Your task to perform on an android device: Search for custom wallets on etsy. Image 0: 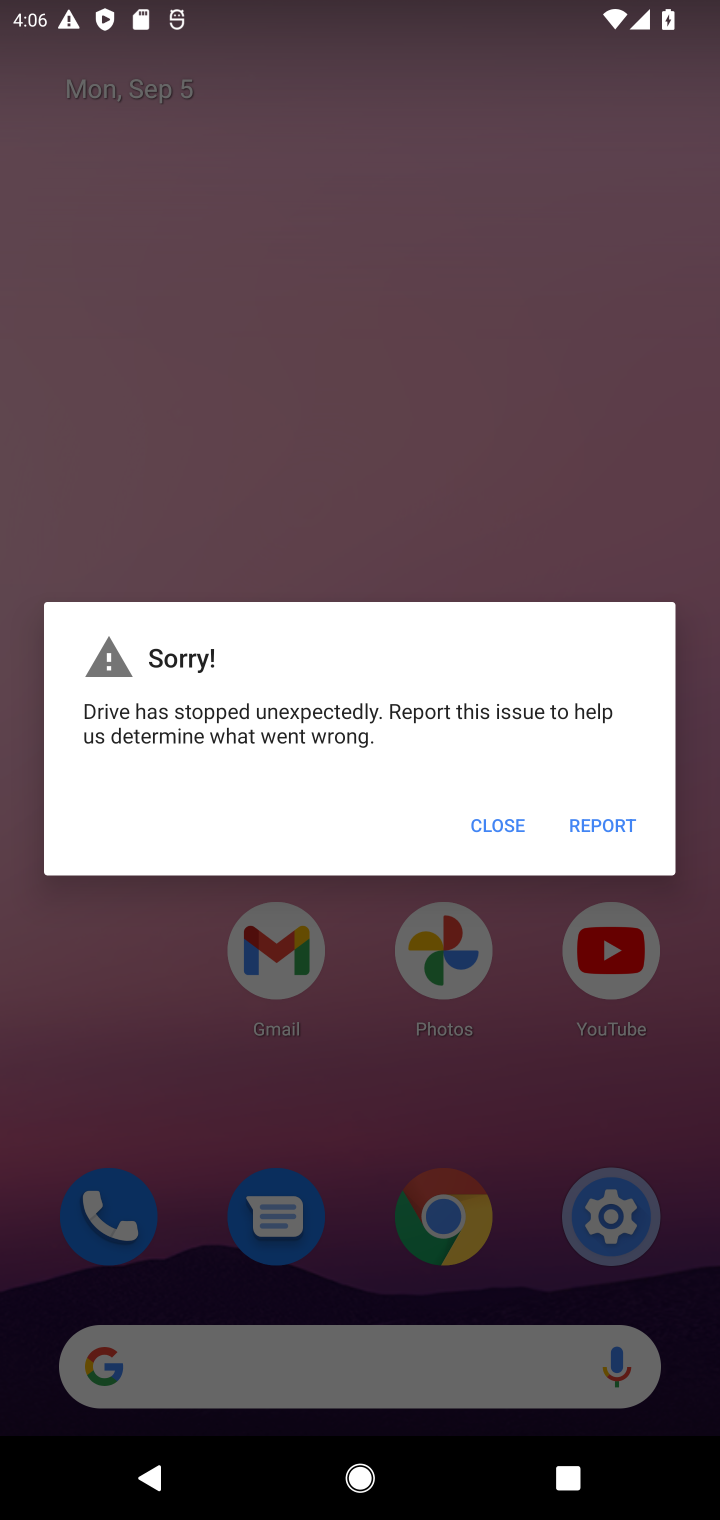
Step 0: press home button
Your task to perform on an android device: Search for custom wallets on etsy. Image 1: 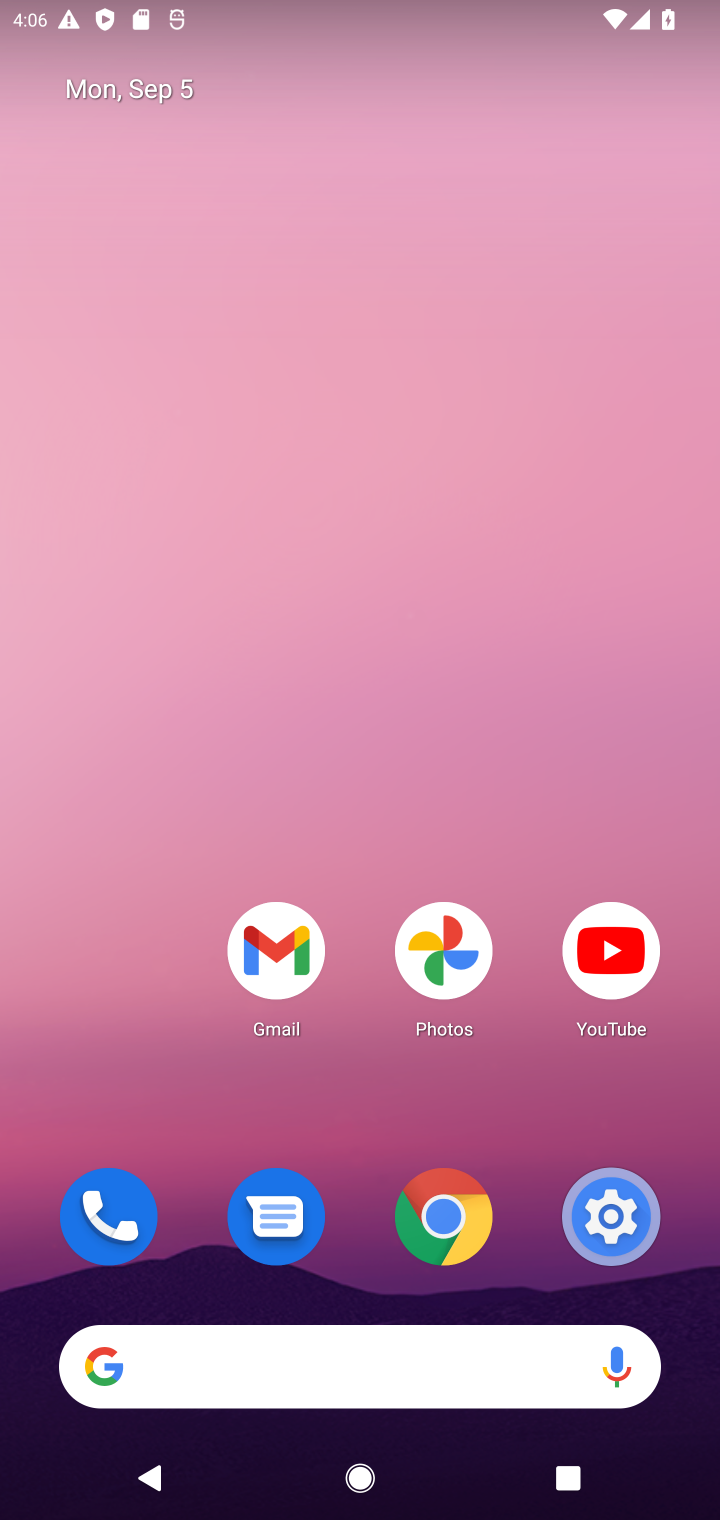
Step 1: click (101, 1358)
Your task to perform on an android device: Search for custom wallets on etsy. Image 2: 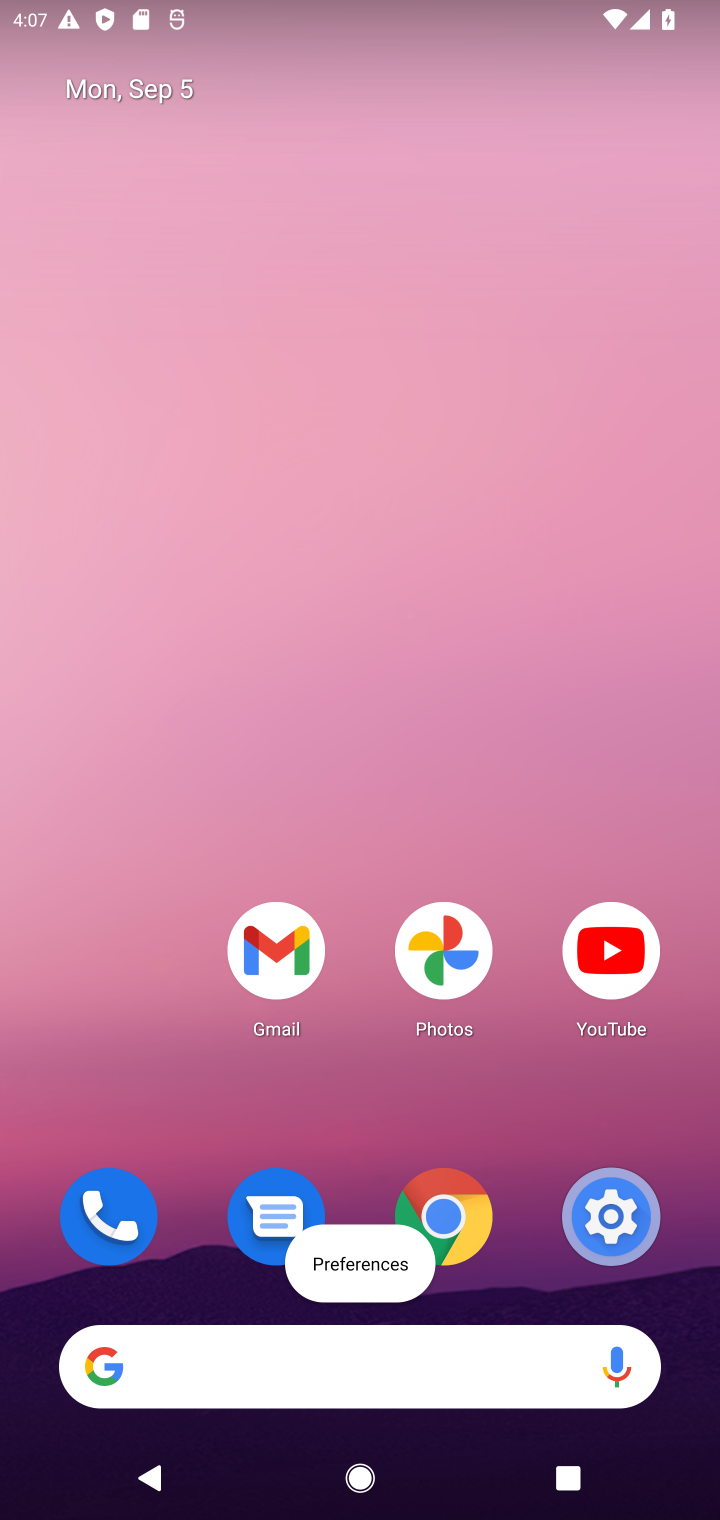
Step 2: click (98, 1364)
Your task to perform on an android device: Search for custom wallets on etsy. Image 3: 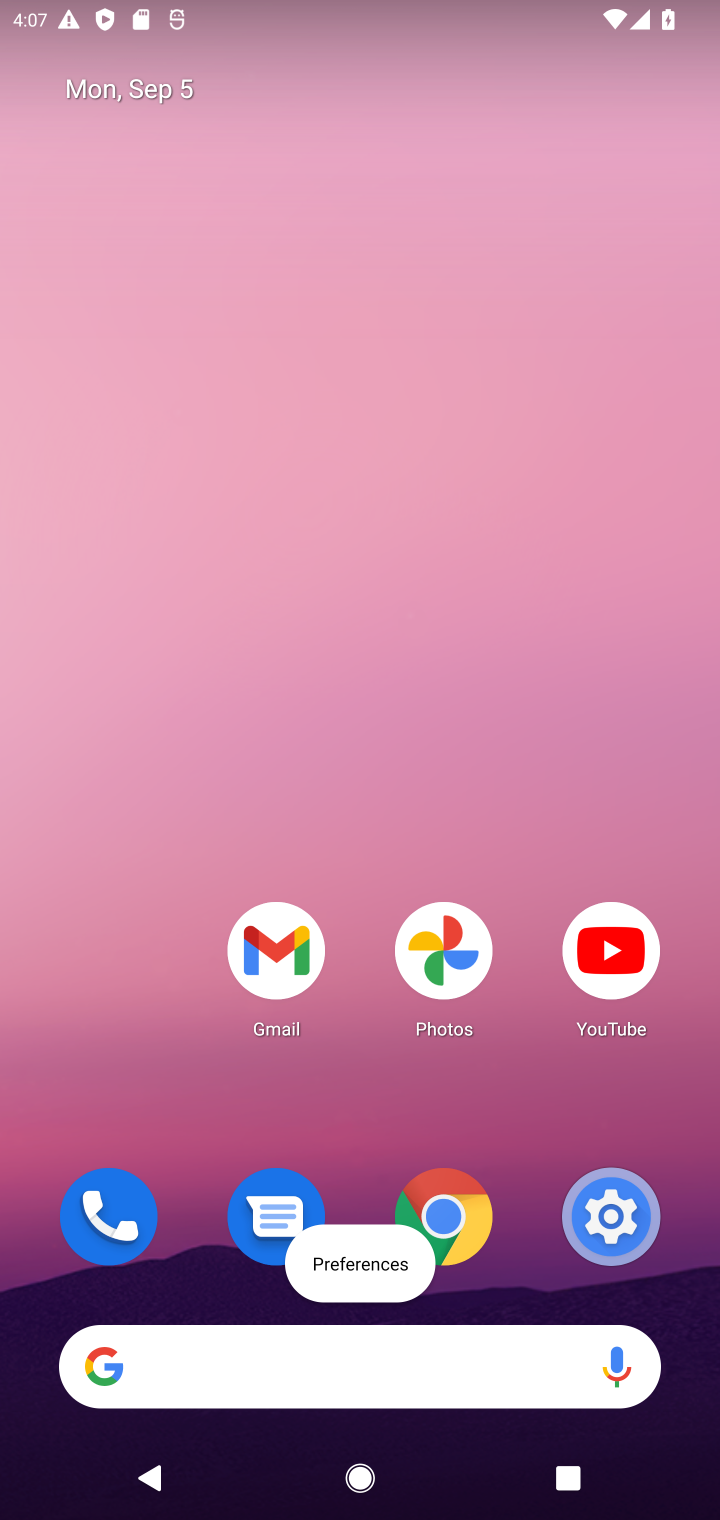
Step 3: click (92, 1367)
Your task to perform on an android device: Search for custom wallets on etsy. Image 4: 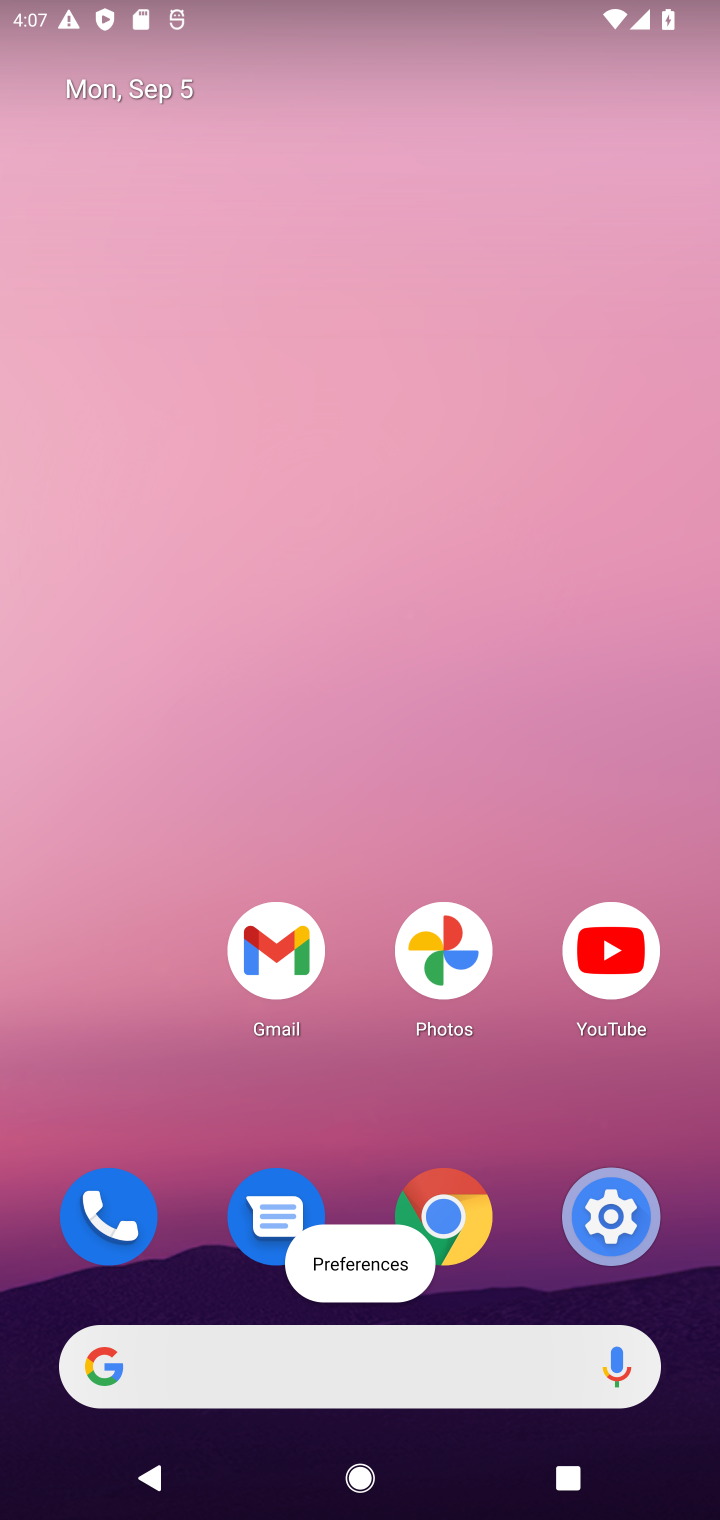
Step 4: click (103, 1381)
Your task to perform on an android device: Search for custom wallets on etsy. Image 5: 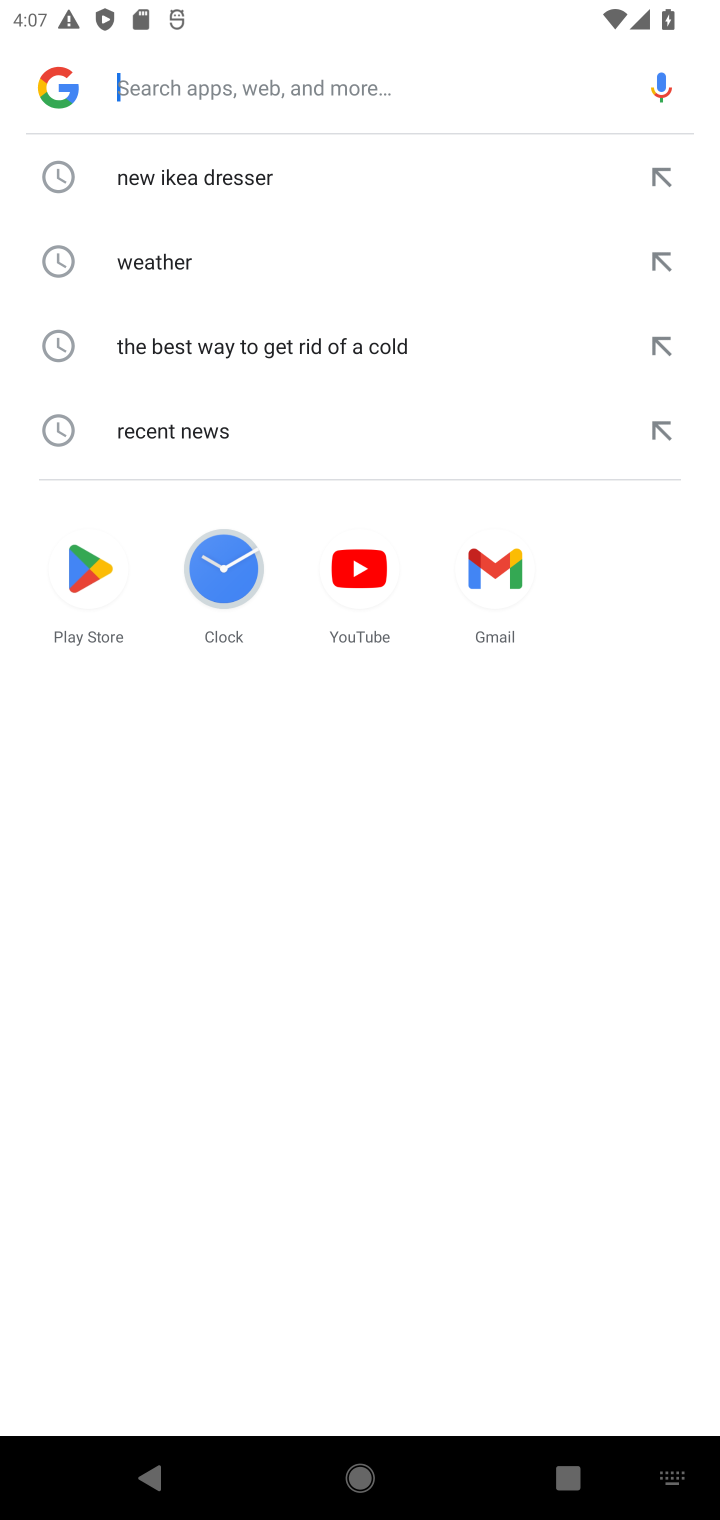
Step 5: type "etsy"
Your task to perform on an android device: Search for custom wallets on etsy. Image 6: 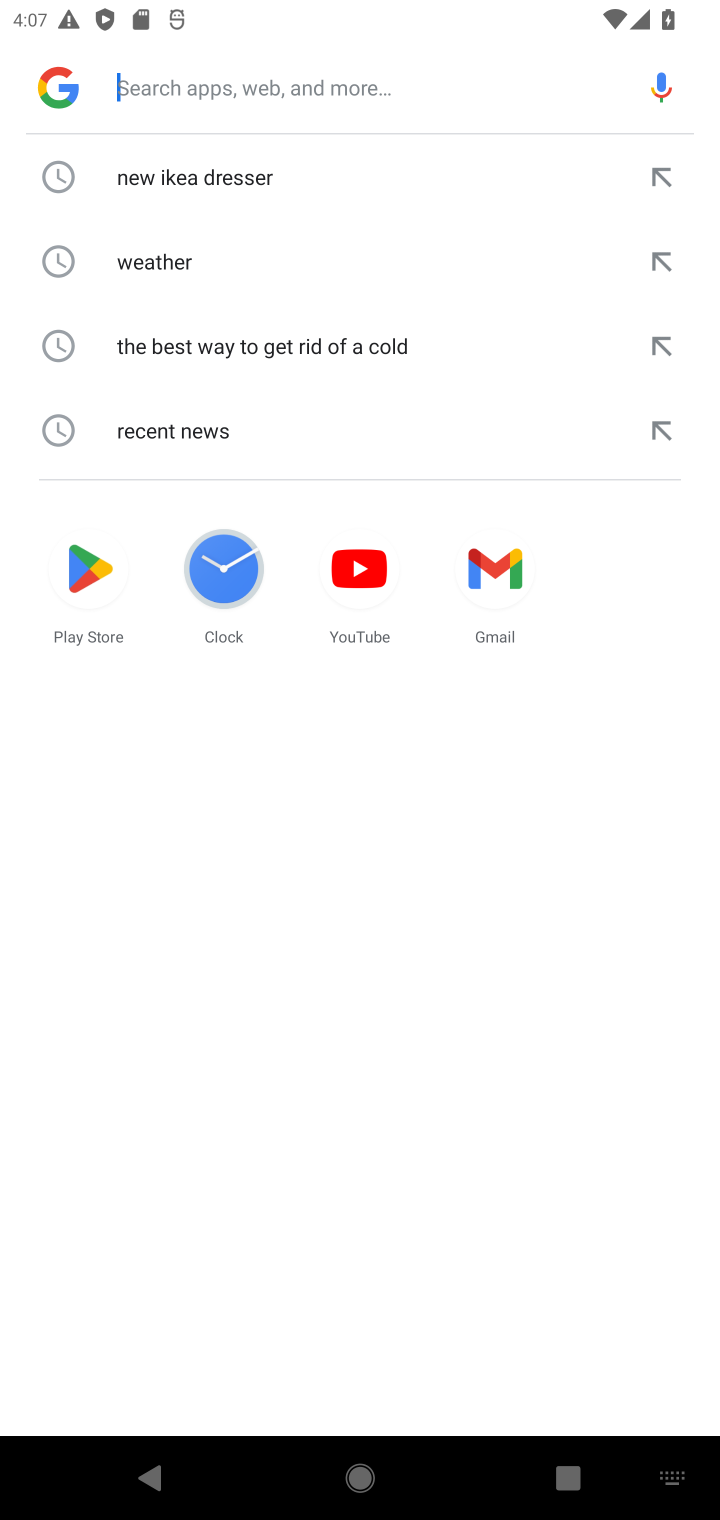
Step 6: click (205, 88)
Your task to perform on an android device: Search for custom wallets on etsy. Image 7: 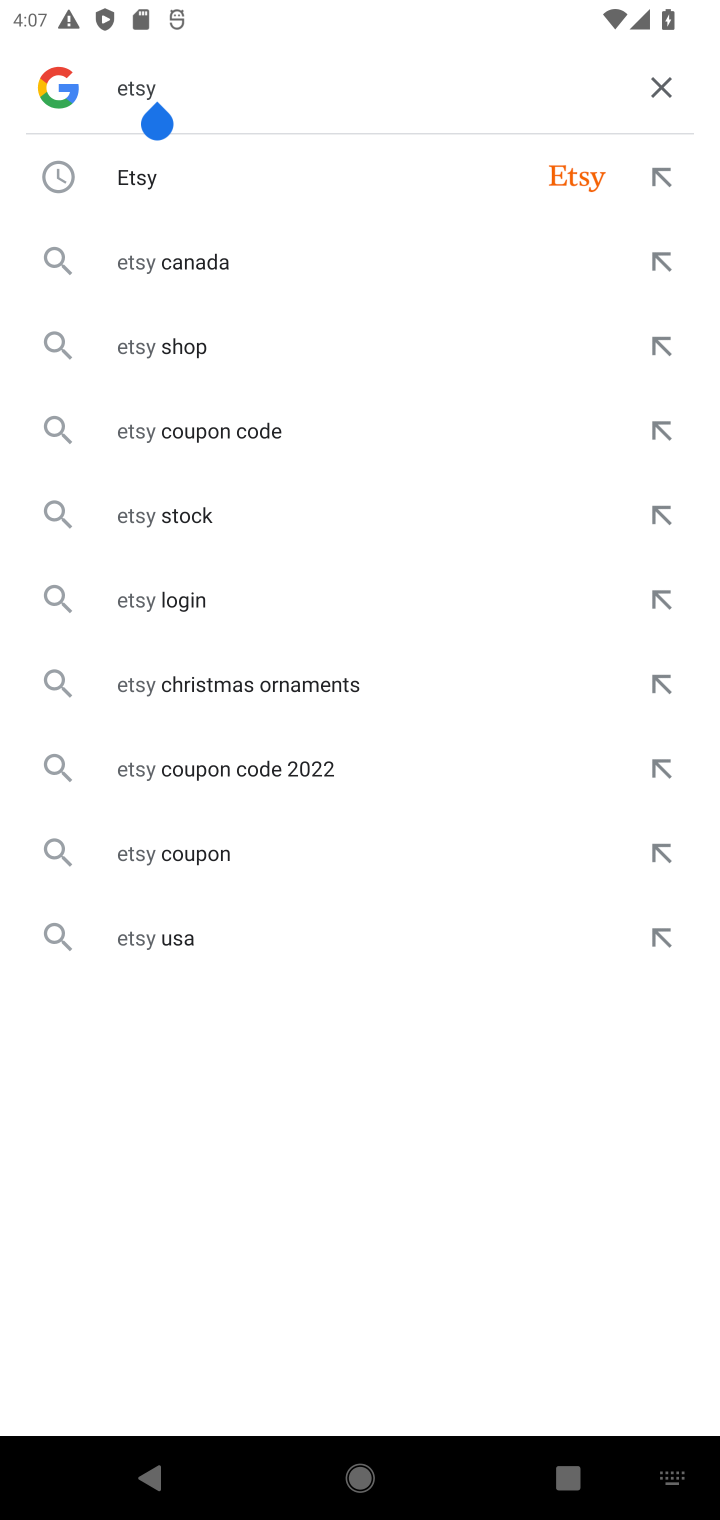
Step 7: click (573, 171)
Your task to perform on an android device: Search for custom wallets on etsy. Image 8: 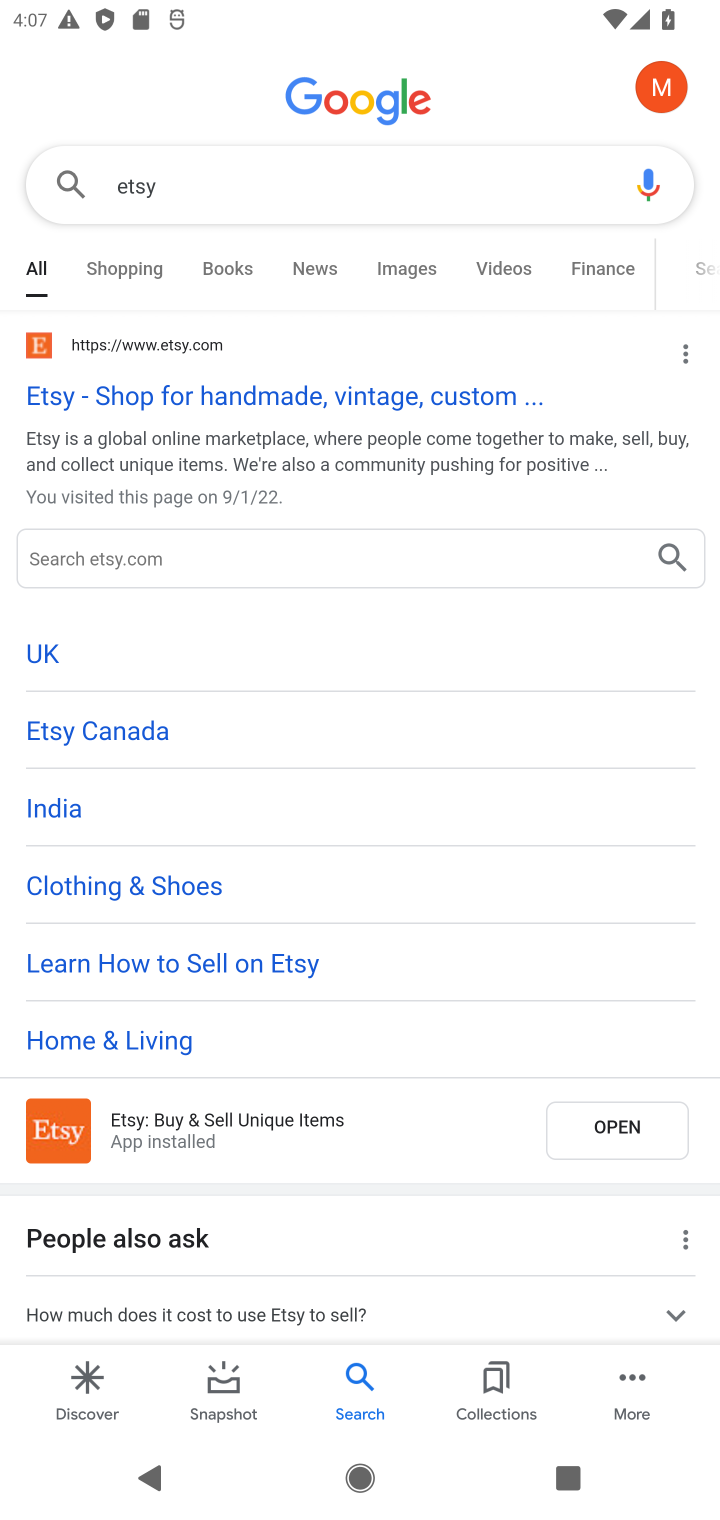
Step 8: click (127, 399)
Your task to perform on an android device: Search for custom wallets on etsy. Image 9: 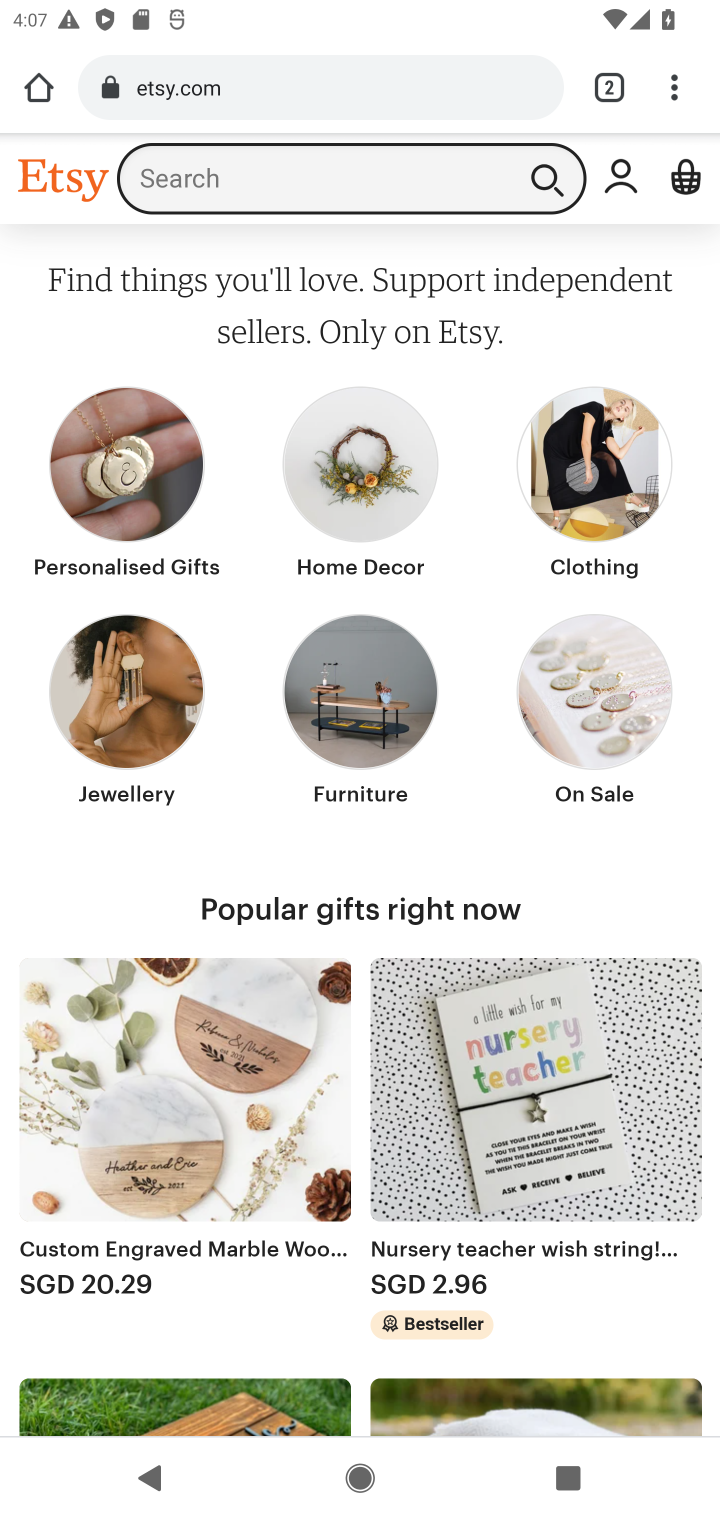
Step 9: type "custom wallets"
Your task to perform on an android device: Search for custom wallets on etsy. Image 10: 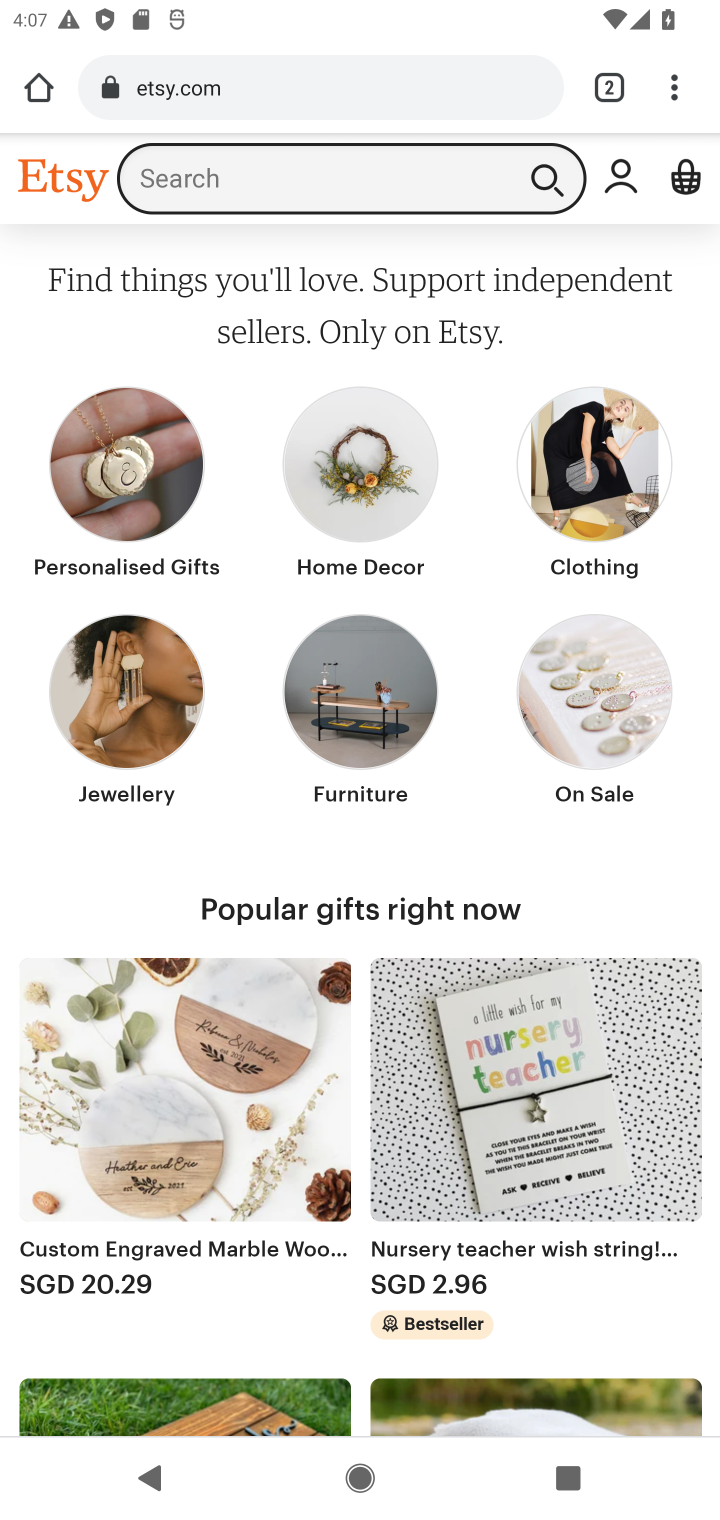
Step 10: click (223, 190)
Your task to perform on an android device: Search for custom wallets on etsy. Image 11: 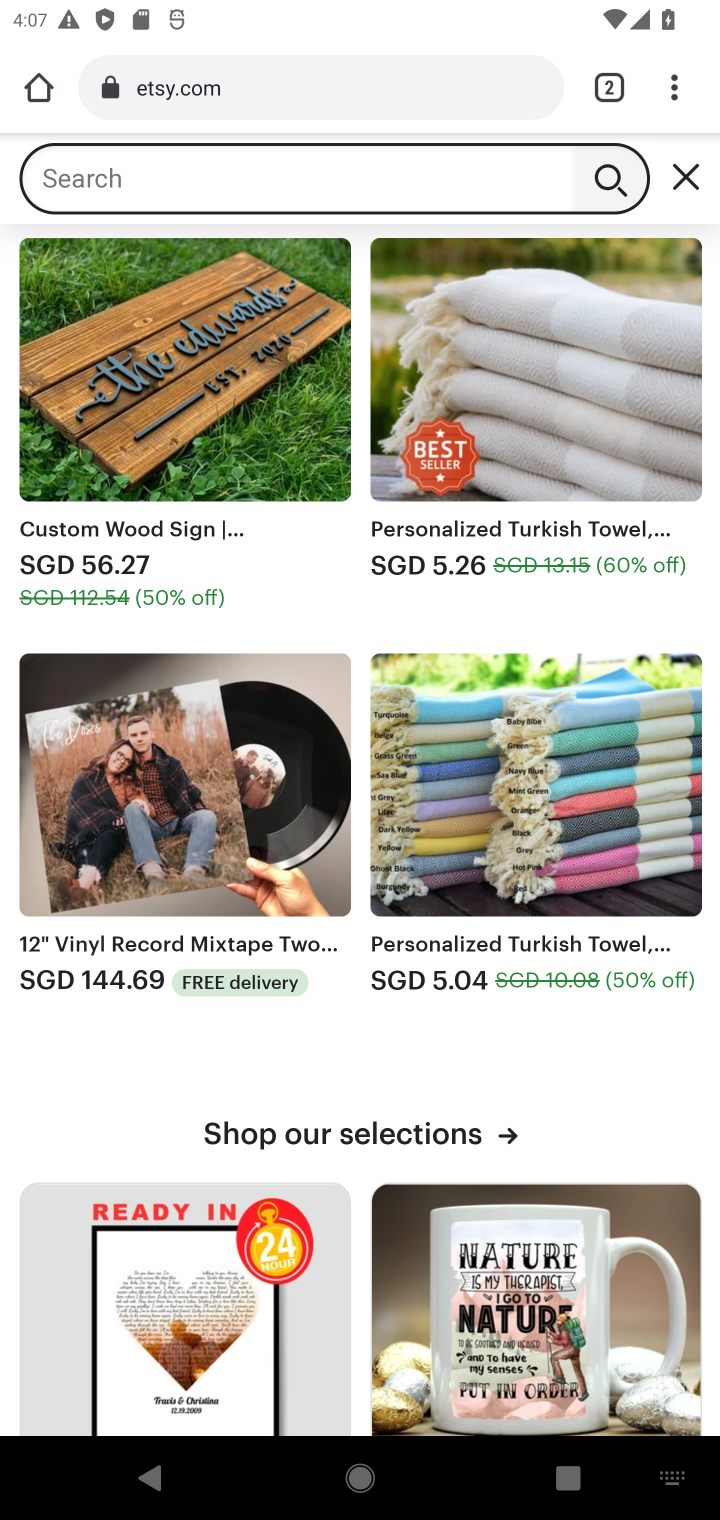
Step 11: click (174, 187)
Your task to perform on an android device: Search for custom wallets on etsy. Image 12: 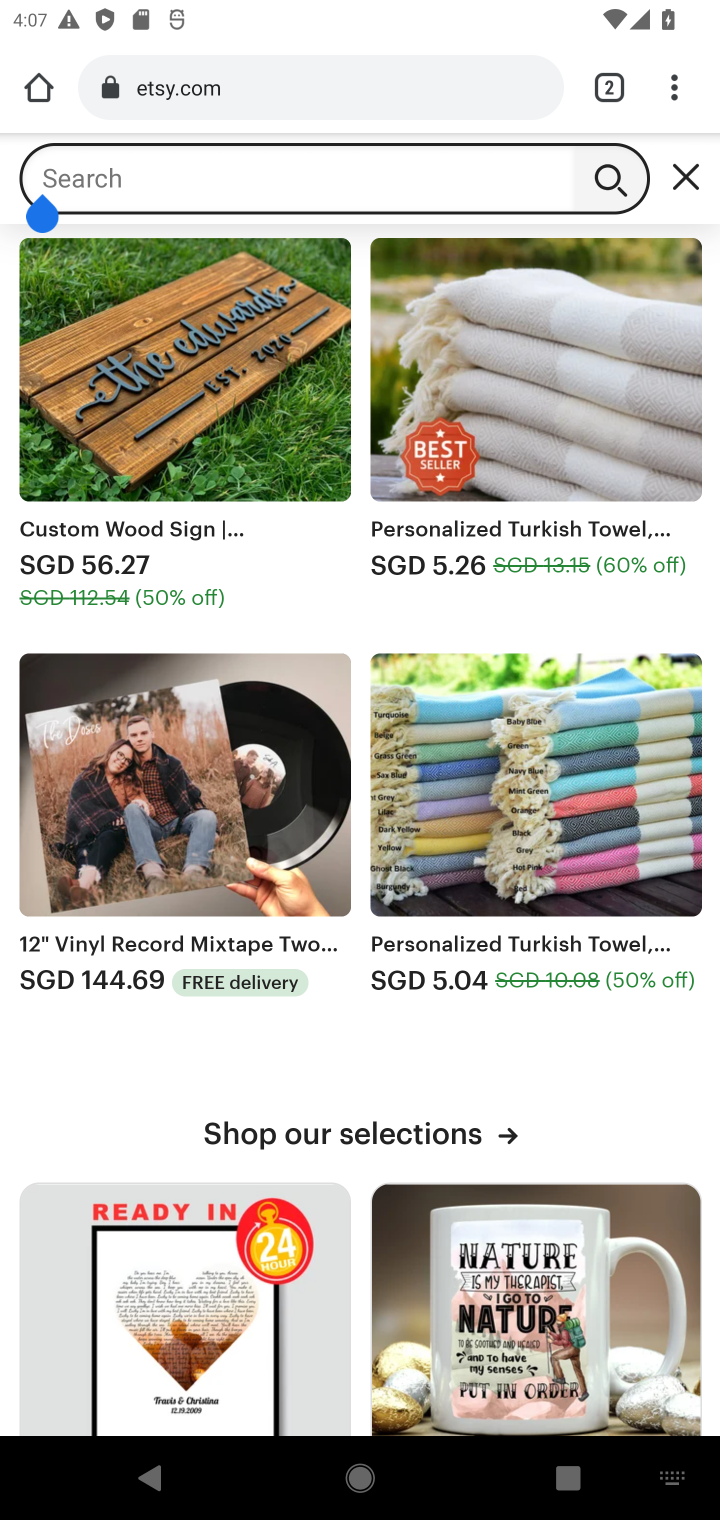
Step 12: type "custom wallets"
Your task to perform on an android device: Search for custom wallets on etsy. Image 13: 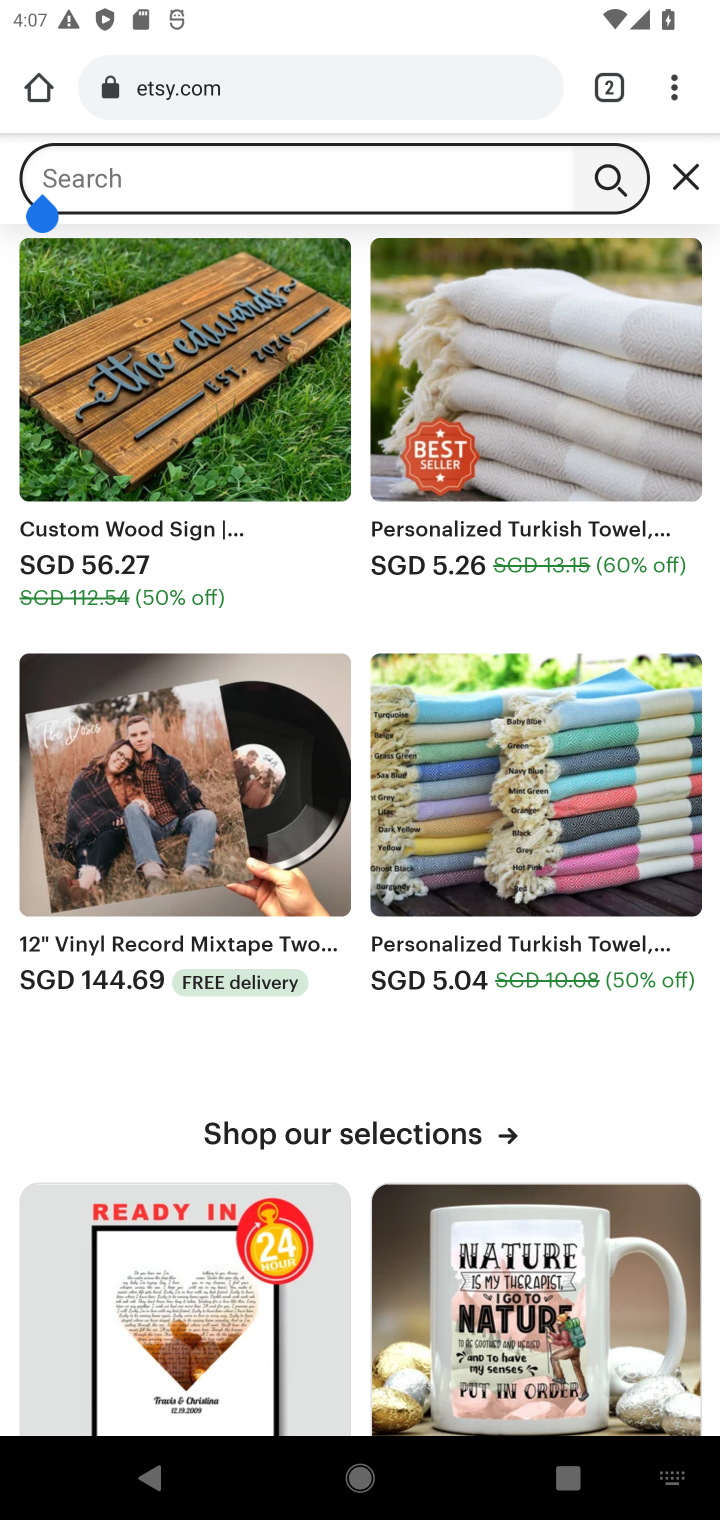
Step 13: click (95, 173)
Your task to perform on an android device: Search for custom wallets on etsy. Image 14: 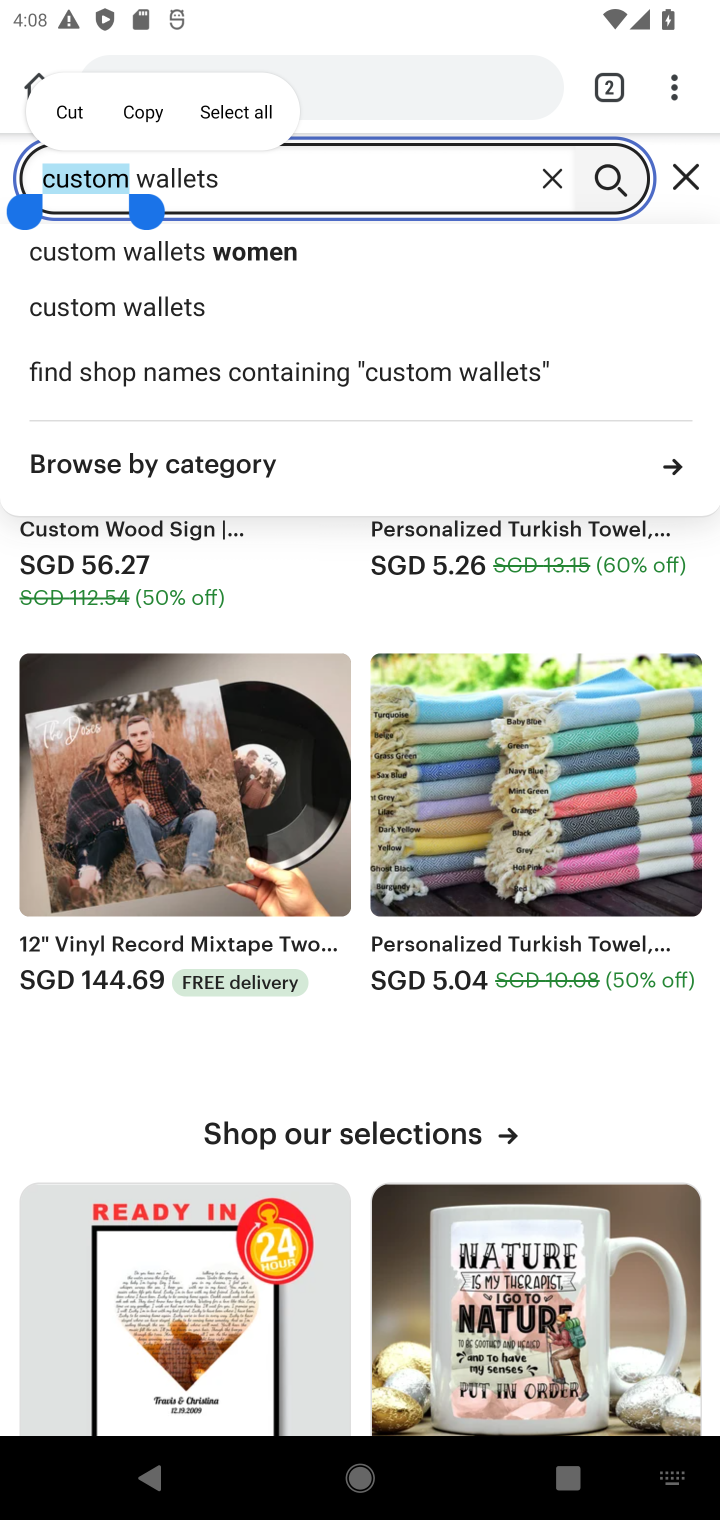
Step 14: click (96, 301)
Your task to perform on an android device: Search for custom wallets on etsy. Image 15: 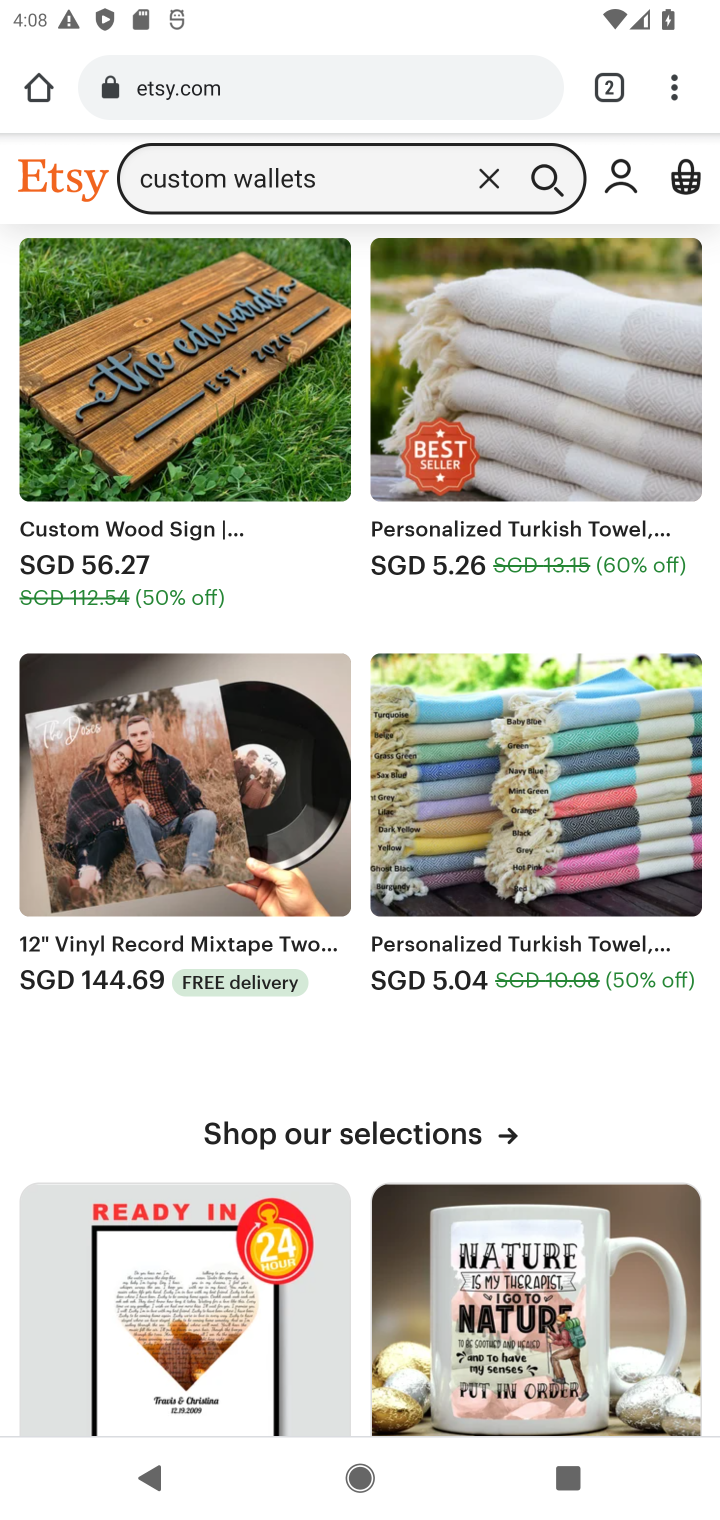
Step 15: click (340, 1354)
Your task to perform on an android device: Search for custom wallets on etsy. Image 16: 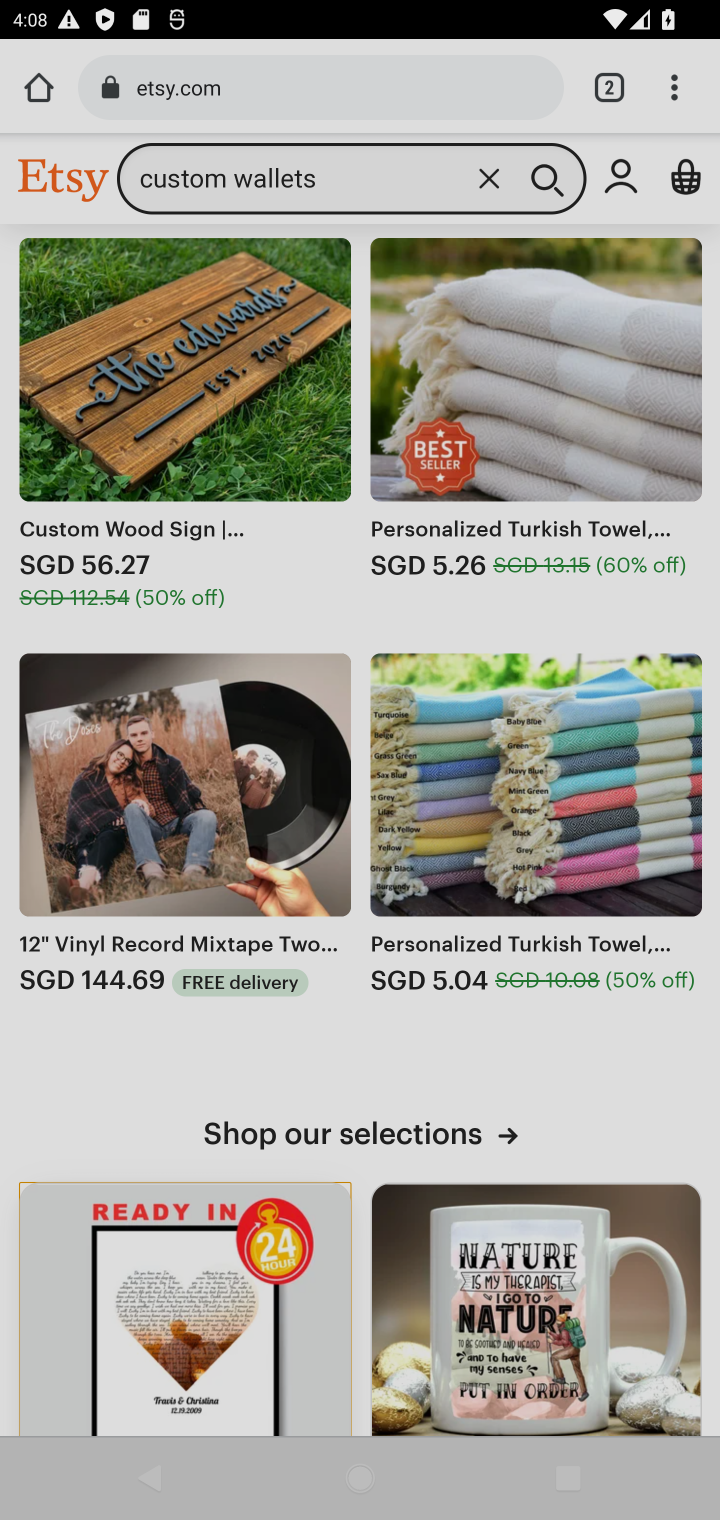
Step 16: click (533, 178)
Your task to perform on an android device: Search for custom wallets on etsy. Image 17: 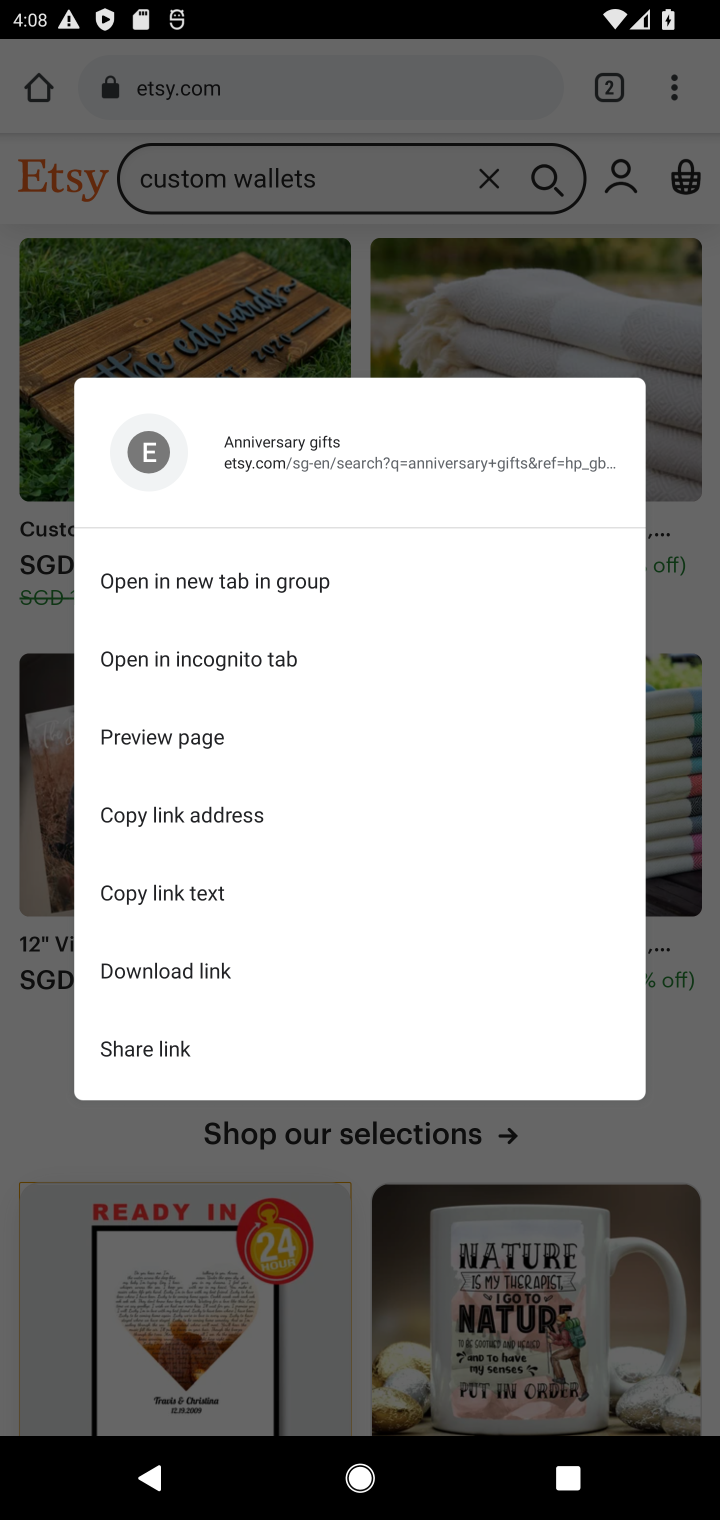
Step 17: click (533, 178)
Your task to perform on an android device: Search for custom wallets on etsy. Image 18: 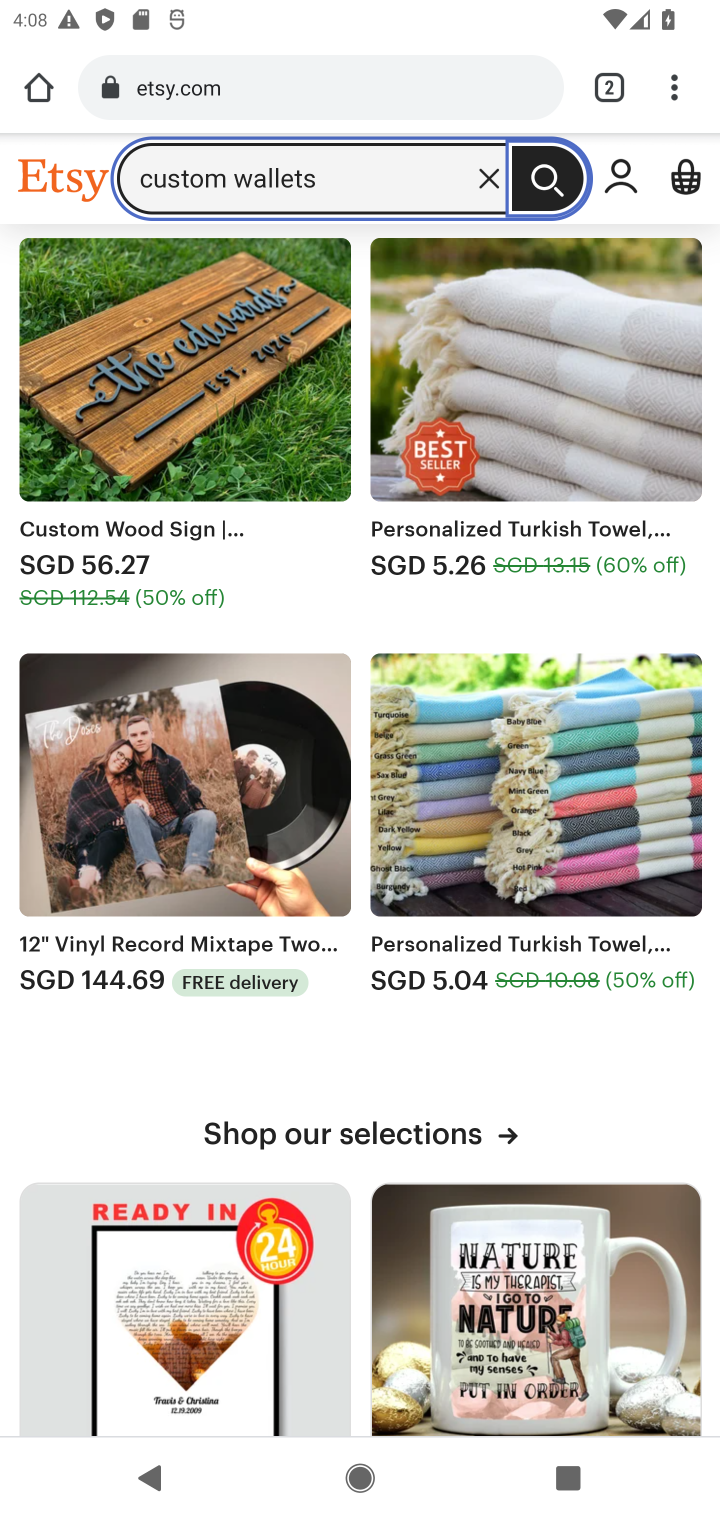
Step 18: press enter
Your task to perform on an android device: Search for custom wallets on etsy. Image 19: 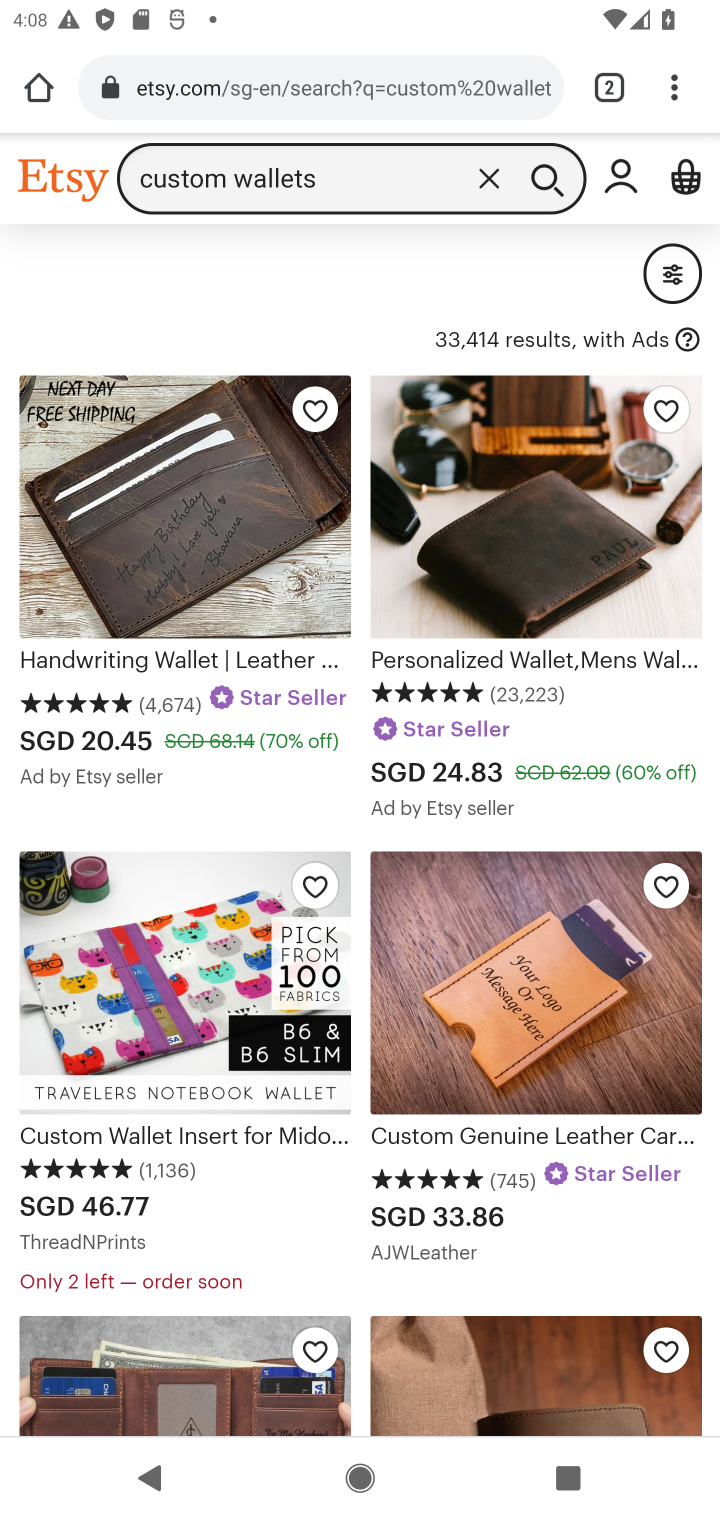
Step 19: task complete